Your task to perform on an android device: Open accessibility settings Image 0: 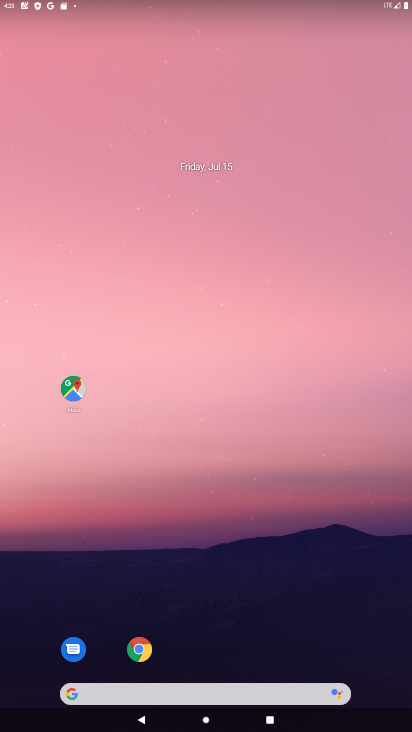
Step 0: drag from (219, 637) to (215, 166)
Your task to perform on an android device: Open accessibility settings Image 1: 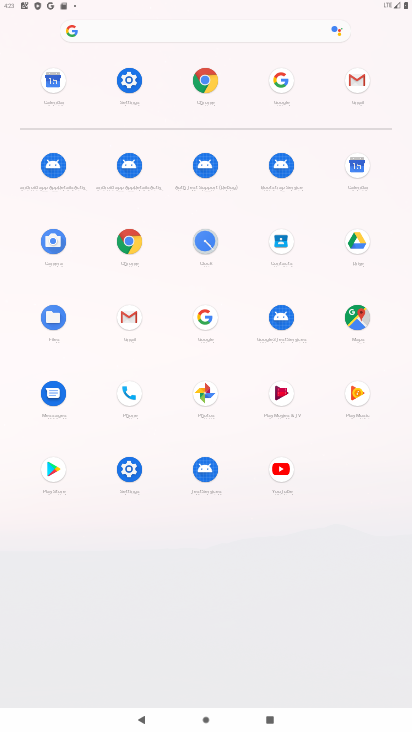
Step 1: click (135, 94)
Your task to perform on an android device: Open accessibility settings Image 2: 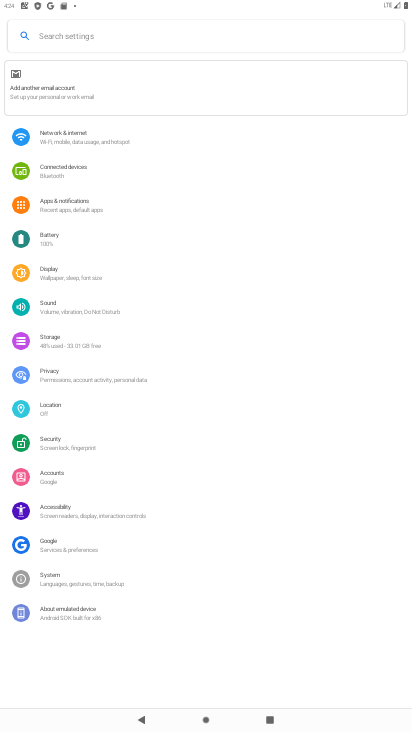
Step 2: click (49, 509)
Your task to perform on an android device: Open accessibility settings Image 3: 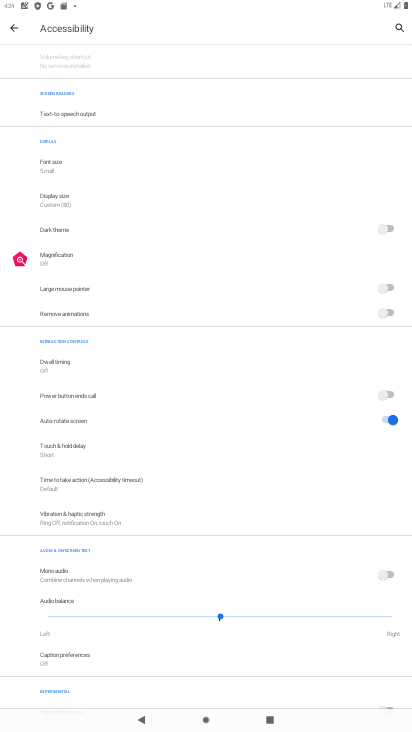
Step 3: task complete